Your task to perform on an android device: add a contact Image 0: 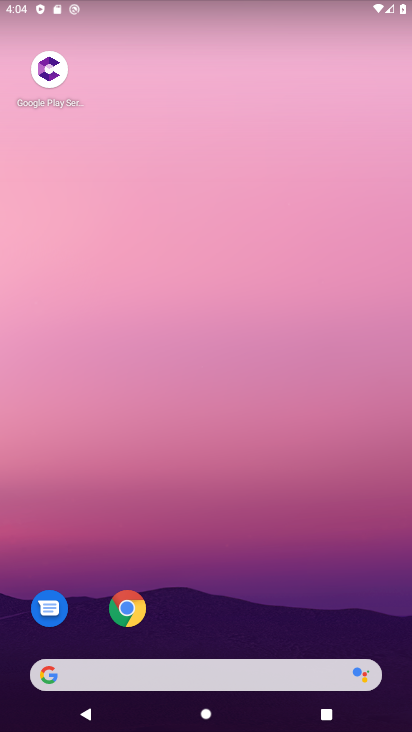
Step 0: drag from (232, 608) to (240, 47)
Your task to perform on an android device: add a contact Image 1: 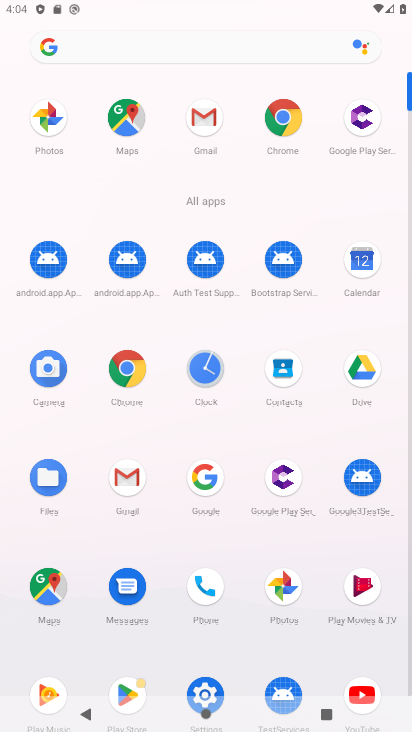
Step 1: click (280, 384)
Your task to perform on an android device: add a contact Image 2: 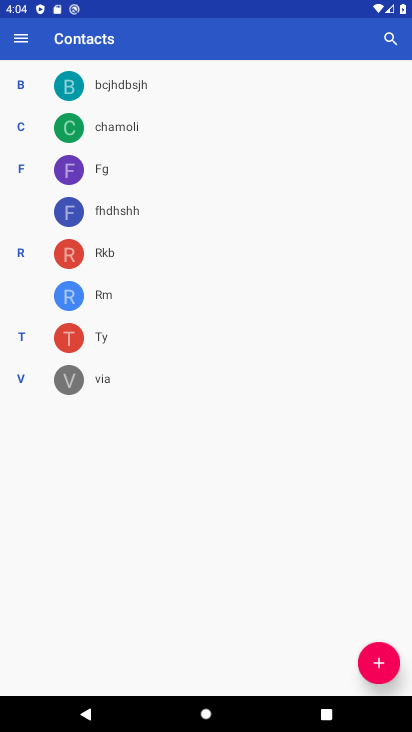
Step 2: click (379, 653)
Your task to perform on an android device: add a contact Image 3: 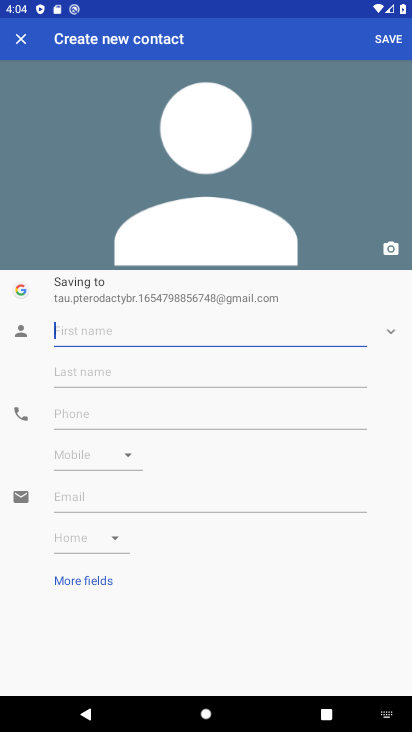
Step 3: type "sdfghj"
Your task to perform on an android device: add a contact Image 4: 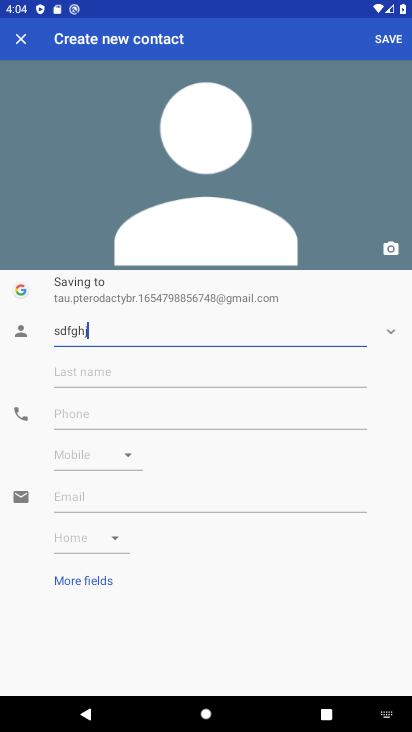
Step 4: click (82, 408)
Your task to perform on an android device: add a contact Image 5: 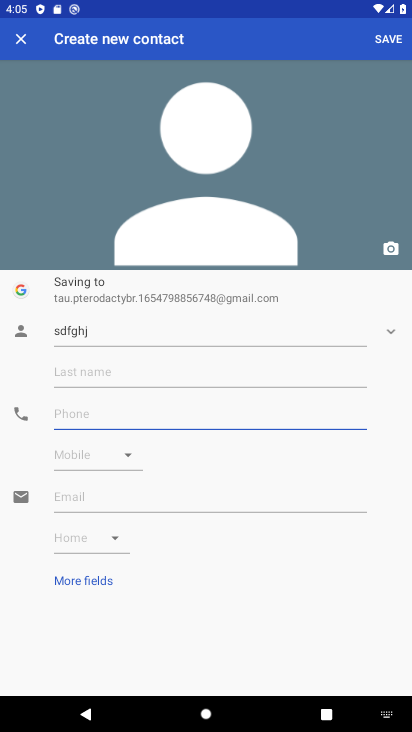
Step 5: type "we45678987654"
Your task to perform on an android device: add a contact Image 6: 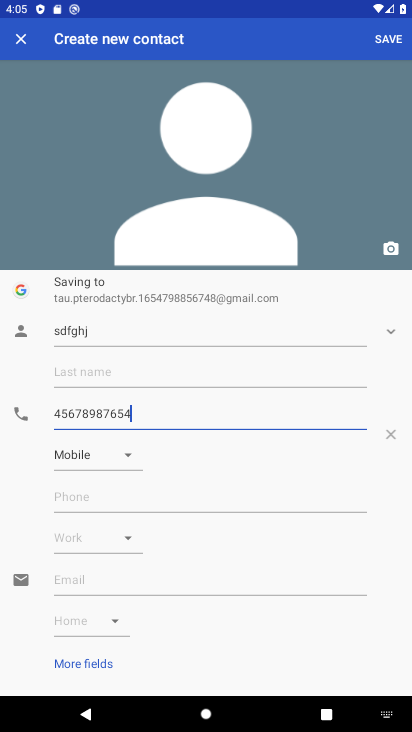
Step 6: click (386, 48)
Your task to perform on an android device: add a contact Image 7: 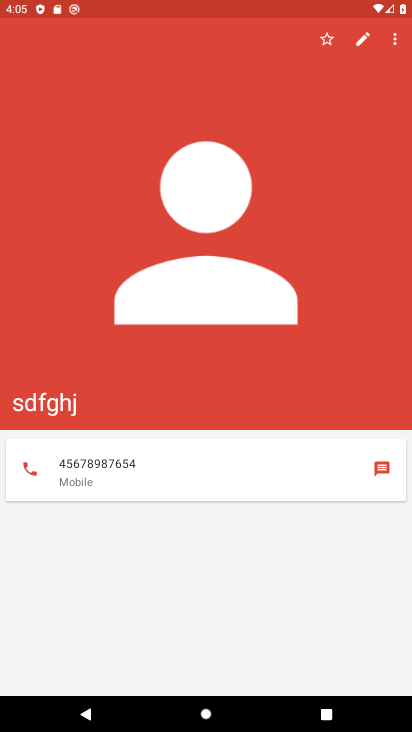
Step 7: task complete